Your task to perform on an android device: Open location settings Image 0: 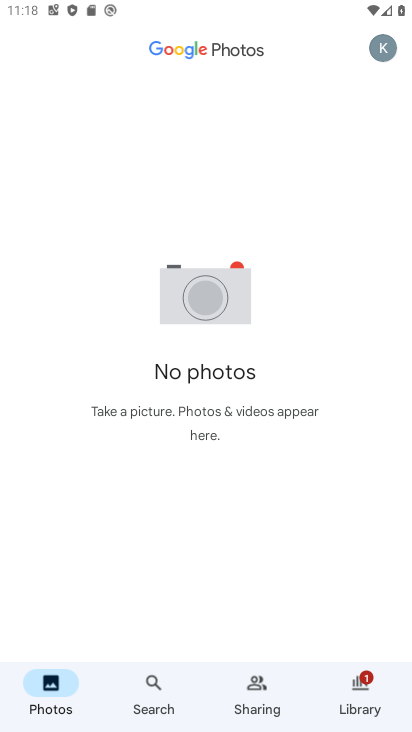
Step 0: press home button
Your task to perform on an android device: Open location settings Image 1: 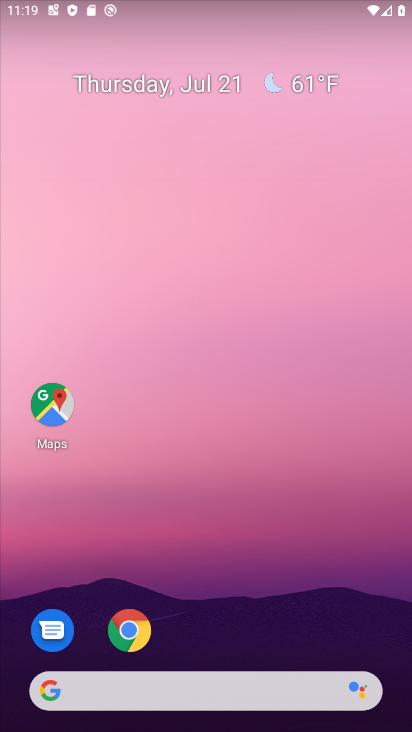
Step 1: drag from (232, 675) to (235, 241)
Your task to perform on an android device: Open location settings Image 2: 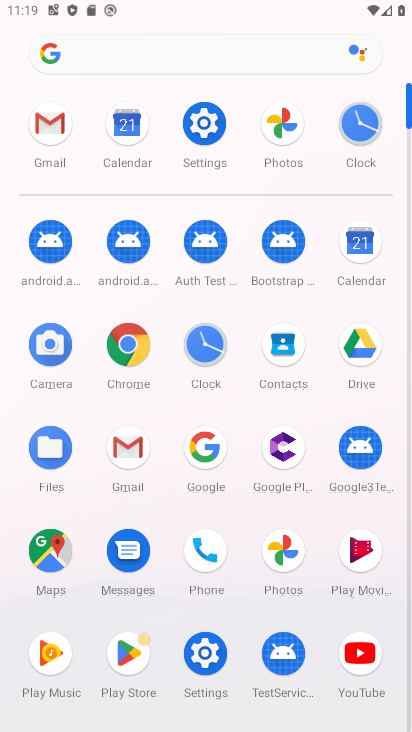
Step 2: click (200, 660)
Your task to perform on an android device: Open location settings Image 3: 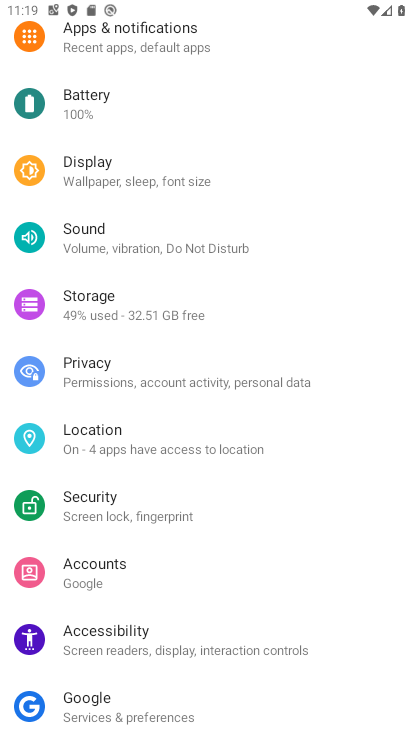
Step 3: click (98, 440)
Your task to perform on an android device: Open location settings Image 4: 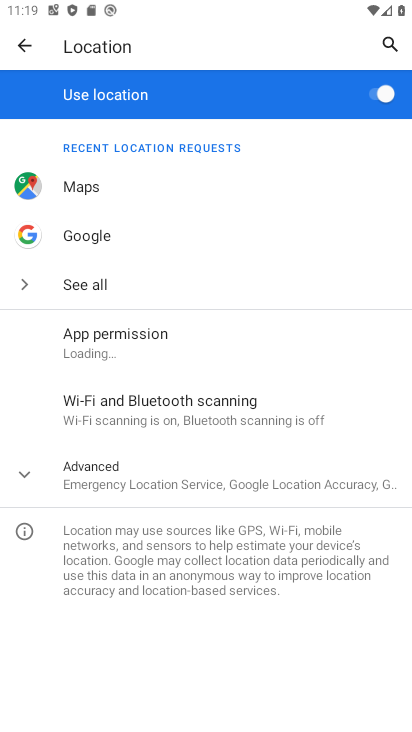
Step 4: click (88, 474)
Your task to perform on an android device: Open location settings Image 5: 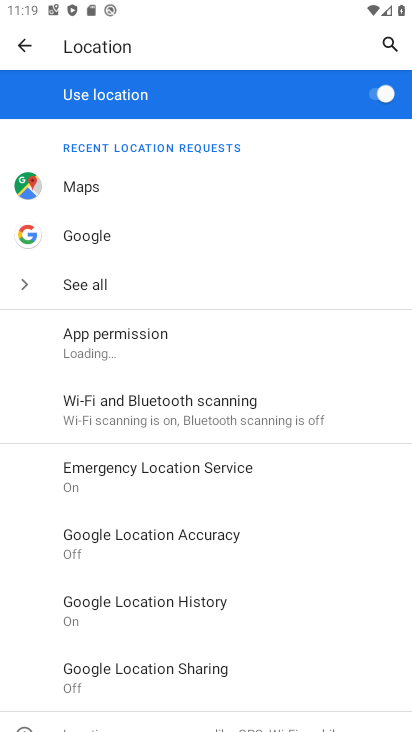
Step 5: task complete